Your task to perform on an android device: Go to Reddit.com Image 0: 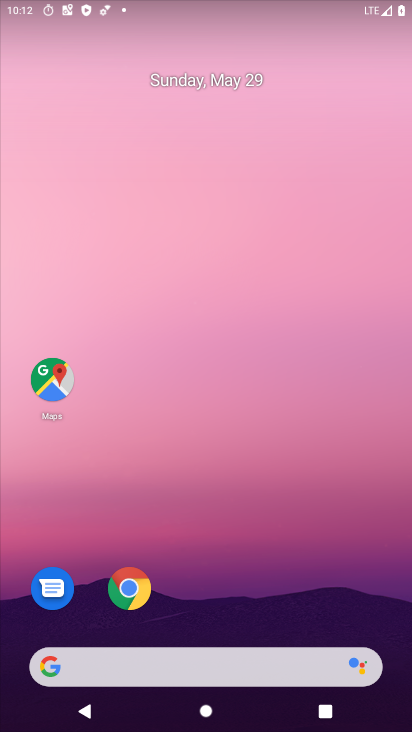
Step 0: drag from (188, 607) to (289, 100)
Your task to perform on an android device: Go to Reddit.com Image 1: 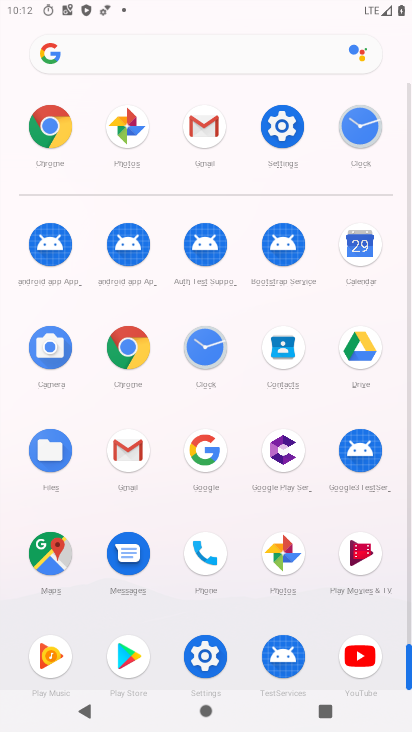
Step 1: click (135, 361)
Your task to perform on an android device: Go to Reddit.com Image 2: 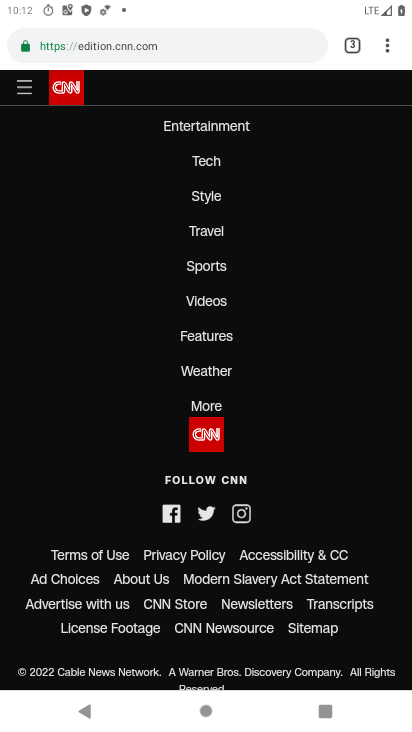
Step 2: click (355, 45)
Your task to perform on an android device: Go to Reddit.com Image 3: 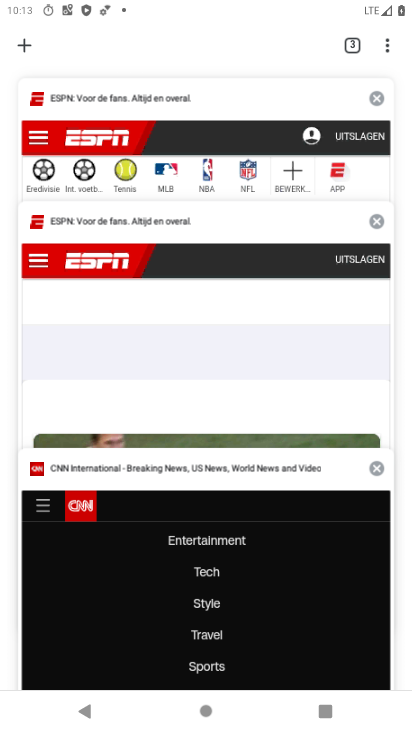
Step 3: click (26, 47)
Your task to perform on an android device: Go to Reddit.com Image 4: 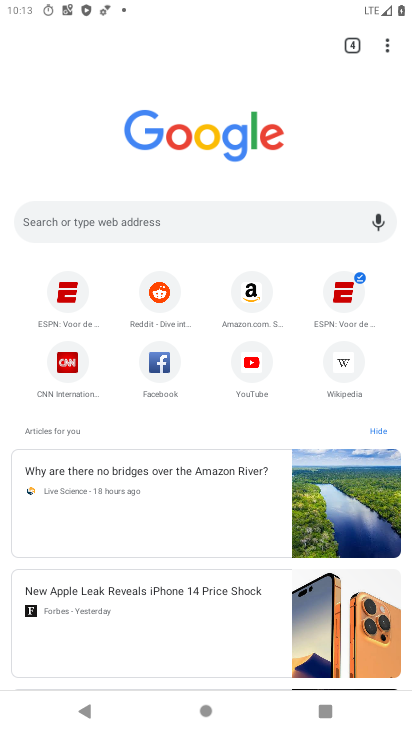
Step 4: click (208, 224)
Your task to perform on an android device: Go to Reddit.com Image 5: 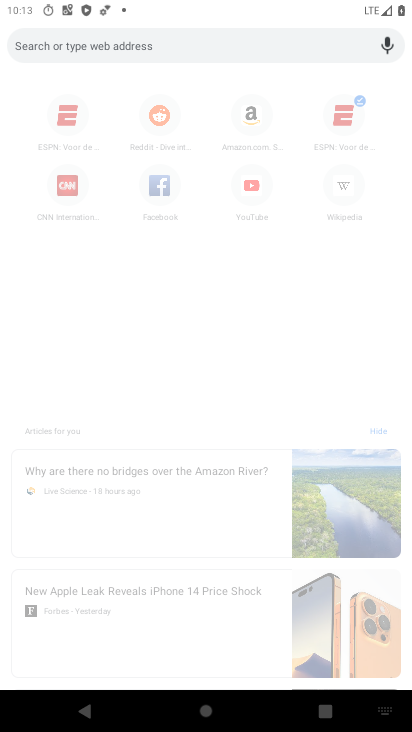
Step 5: type "Reddit.com"
Your task to perform on an android device: Go to Reddit.com Image 6: 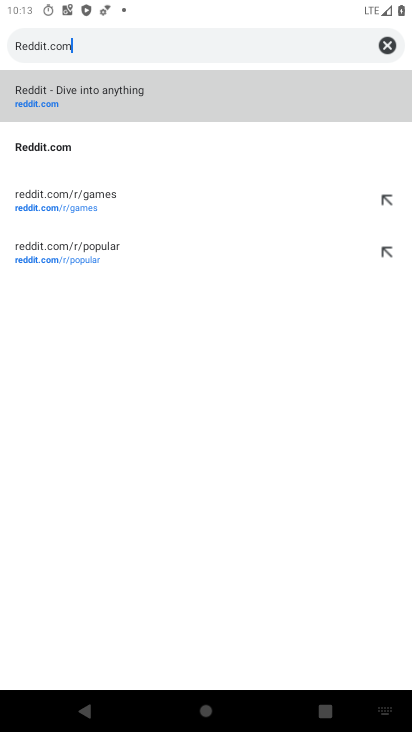
Step 6: type ""
Your task to perform on an android device: Go to Reddit.com Image 7: 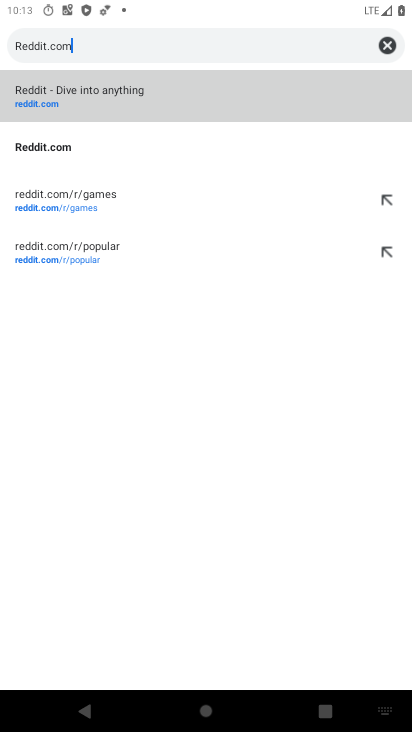
Step 7: click (127, 96)
Your task to perform on an android device: Go to Reddit.com Image 8: 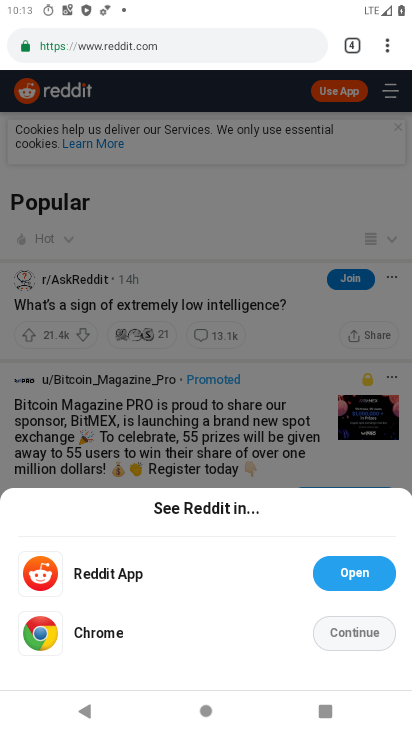
Step 8: click (342, 641)
Your task to perform on an android device: Go to Reddit.com Image 9: 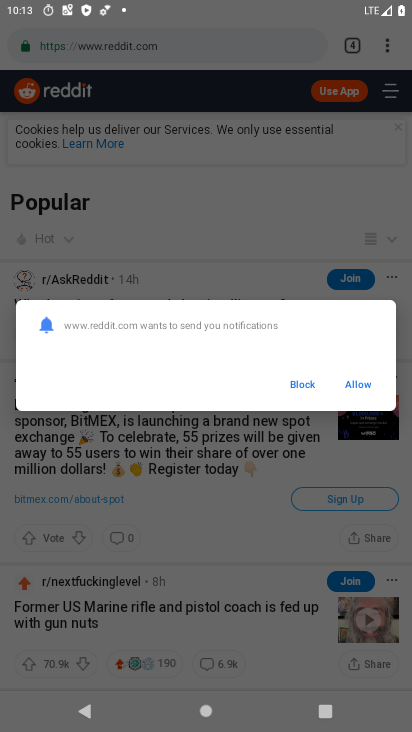
Step 9: task complete